Your task to perform on an android device: Open Youtube and go to "Your channel" Image 0: 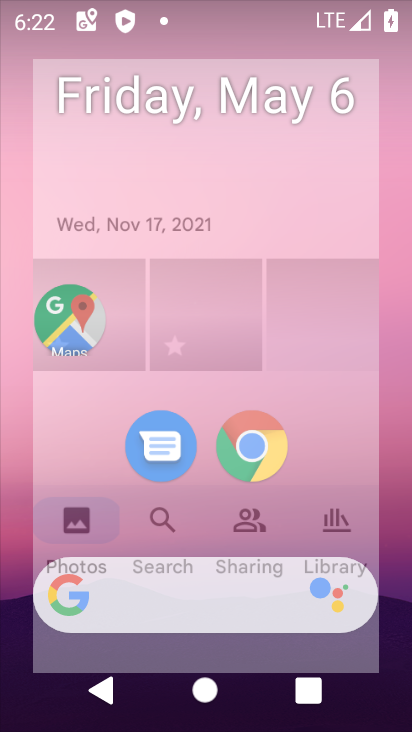
Step 0: click (238, 455)
Your task to perform on an android device: Open Youtube and go to "Your channel" Image 1: 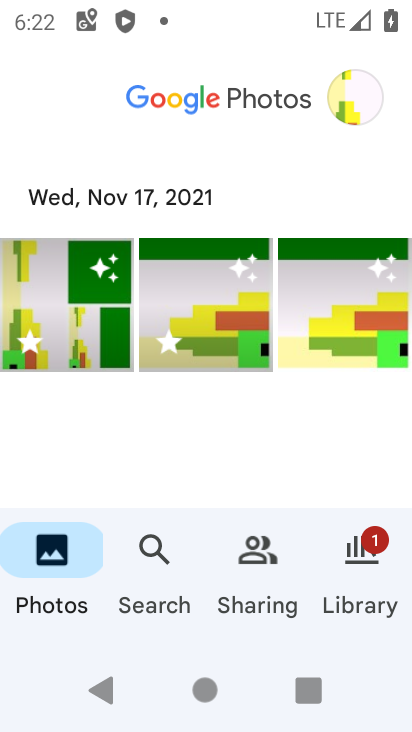
Step 1: press home button
Your task to perform on an android device: Open Youtube and go to "Your channel" Image 2: 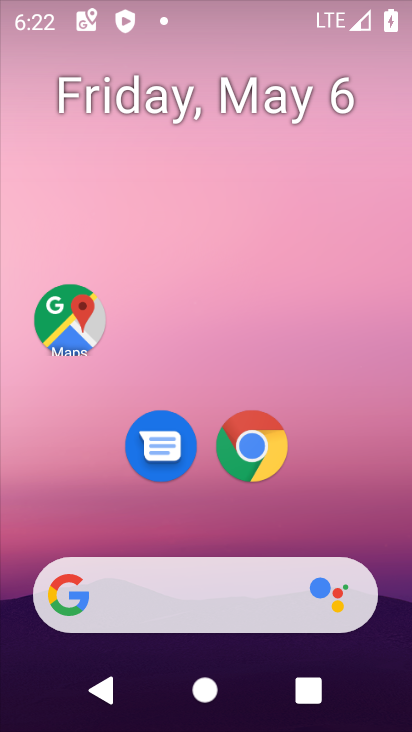
Step 2: drag from (324, 457) to (274, 132)
Your task to perform on an android device: Open Youtube and go to "Your channel" Image 3: 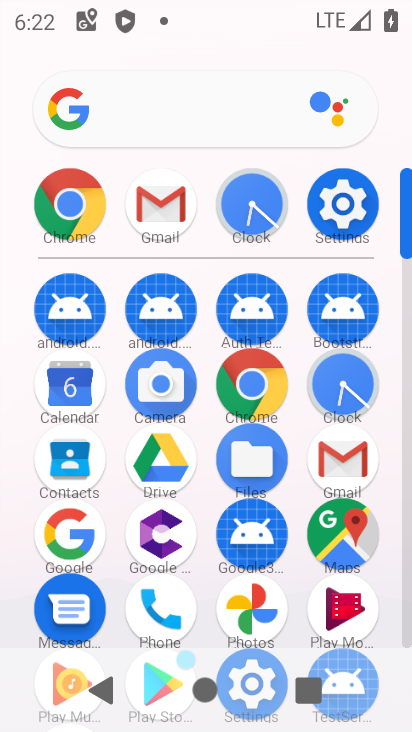
Step 3: click (62, 203)
Your task to perform on an android device: Open Youtube and go to "Your channel" Image 4: 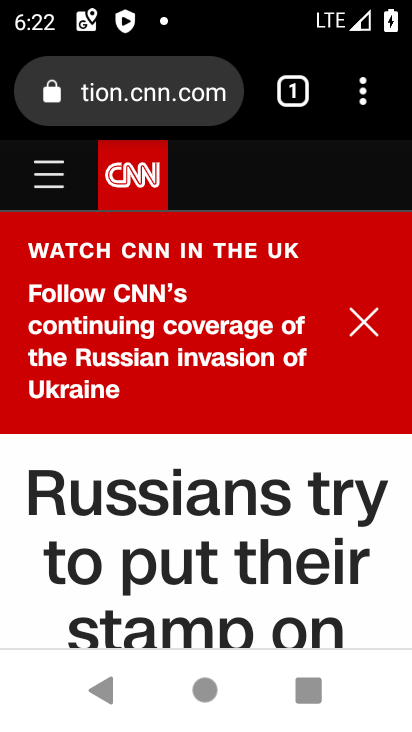
Step 4: press home button
Your task to perform on an android device: Open Youtube and go to "Your channel" Image 5: 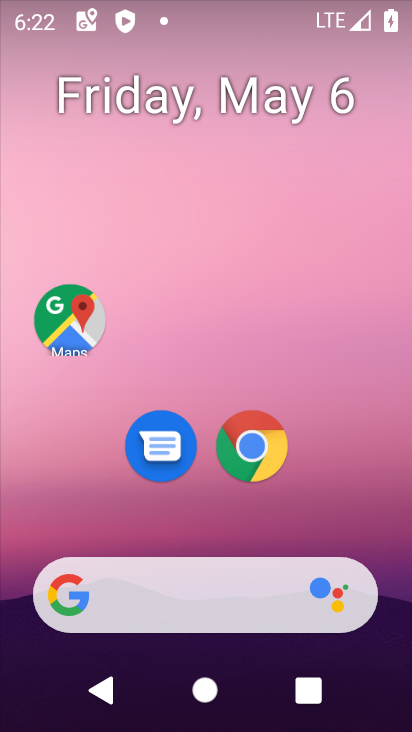
Step 5: drag from (306, 506) to (253, 119)
Your task to perform on an android device: Open Youtube and go to "Your channel" Image 6: 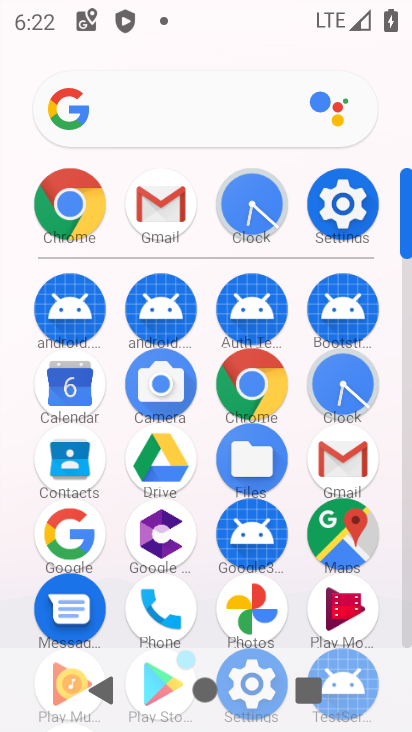
Step 6: drag from (297, 546) to (329, 119)
Your task to perform on an android device: Open Youtube and go to "Your channel" Image 7: 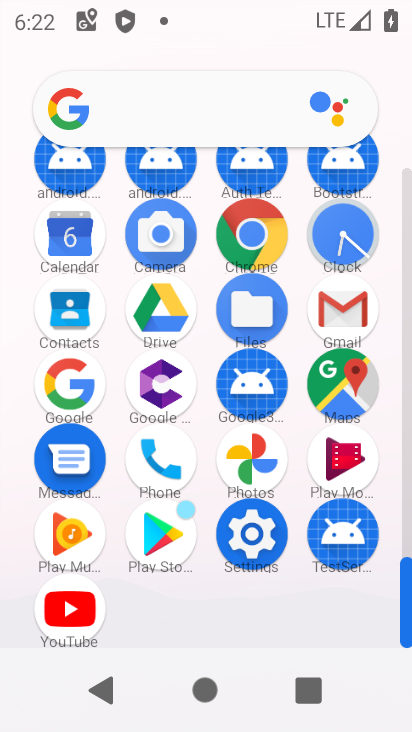
Step 7: click (58, 624)
Your task to perform on an android device: Open Youtube and go to "Your channel" Image 8: 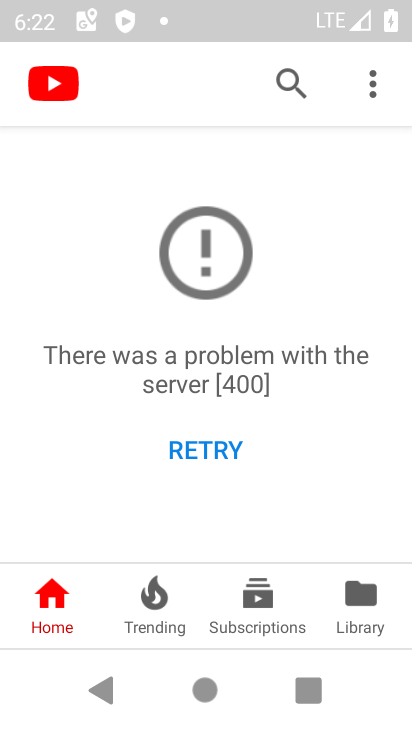
Step 8: click (267, 617)
Your task to perform on an android device: Open Youtube and go to "Your channel" Image 9: 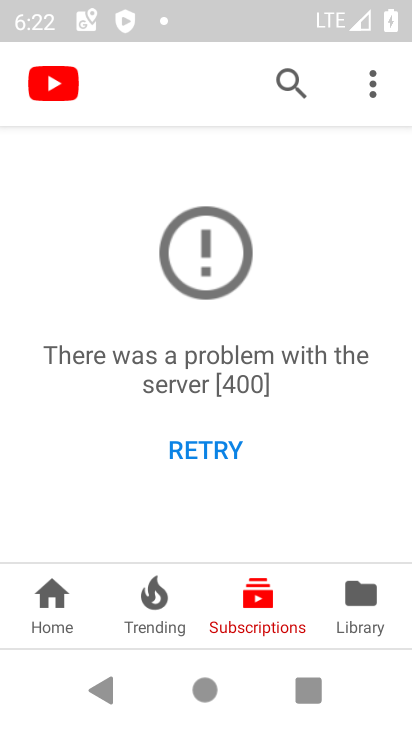
Step 9: click (73, 94)
Your task to perform on an android device: Open Youtube and go to "Your channel" Image 10: 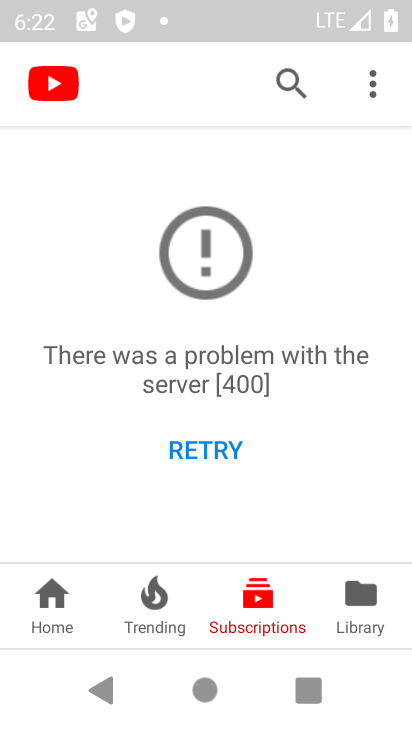
Step 10: click (375, 74)
Your task to perform on an android device: Open Youtube and go to "Your channel" Image 11: 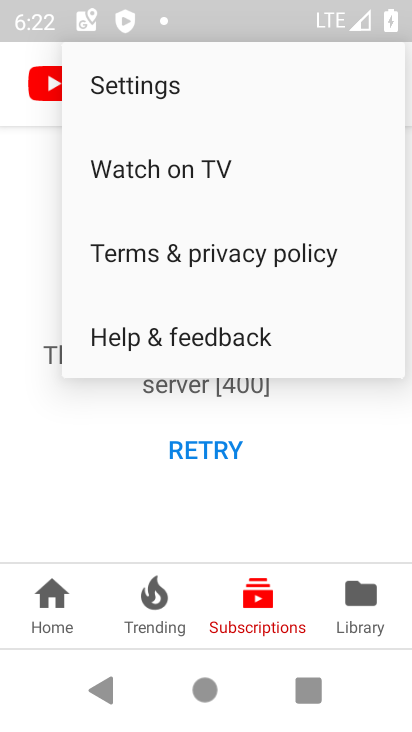
Step 11: click (146, 78)
Your task to perform on an android device: Open Youtube and go to "Your channel" Image 12: 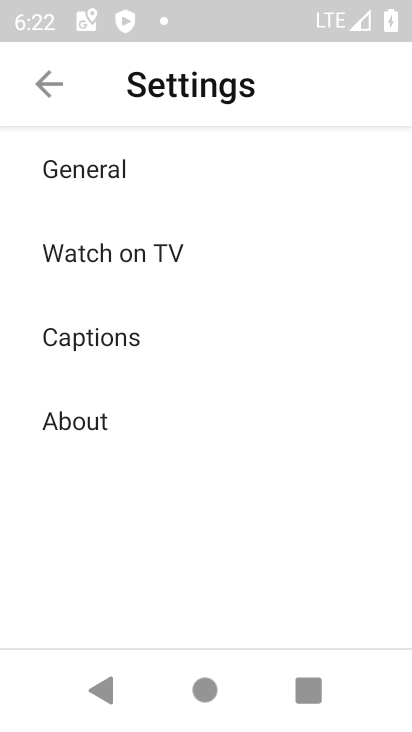
Step 12: click (75, 156)
Your task to perform on an android device: Open Youtube and go to "Your channel" Image 13: 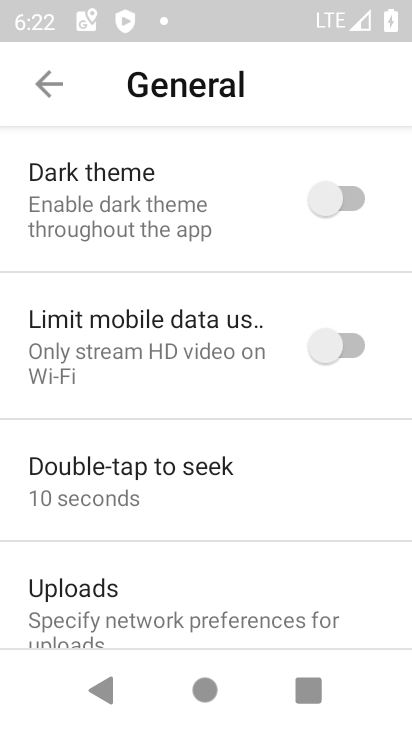
Step 13: drag from (155, 570) to (216, 124)
Your task to perform on an android device: Open Youtube and go to "Your channel" Image 14: 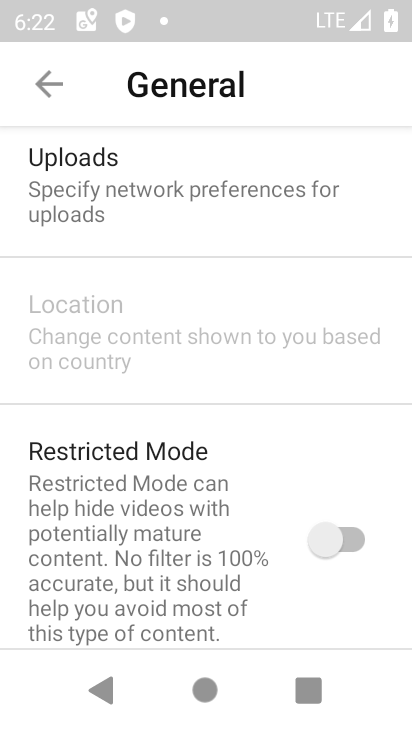
Step 14: click (50, 76)
Your task to perform on an android device: Open Youtube and go to "Your channel" Image 15: 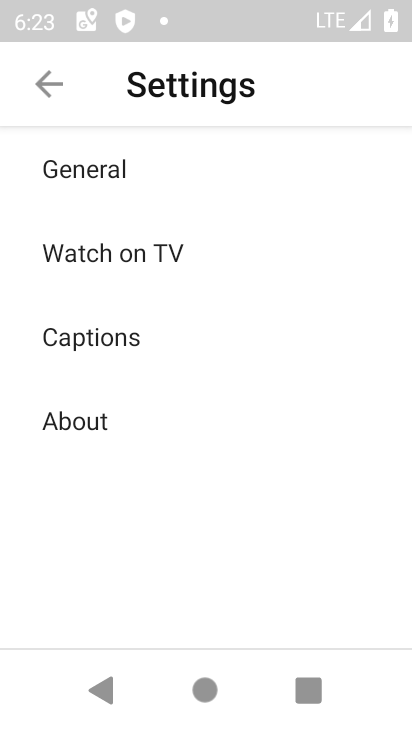
Step 15: click (46, 78)
Your task to perform on an android device: Open Youtube and go to "Your channel" Image 16: 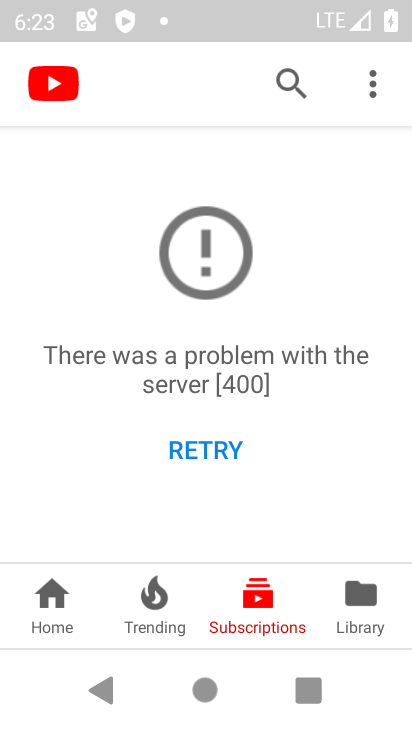
Step 16: click (356, 628)
Your task to perform on an android device: Open Youtube and go to "Your channel" Image 17: 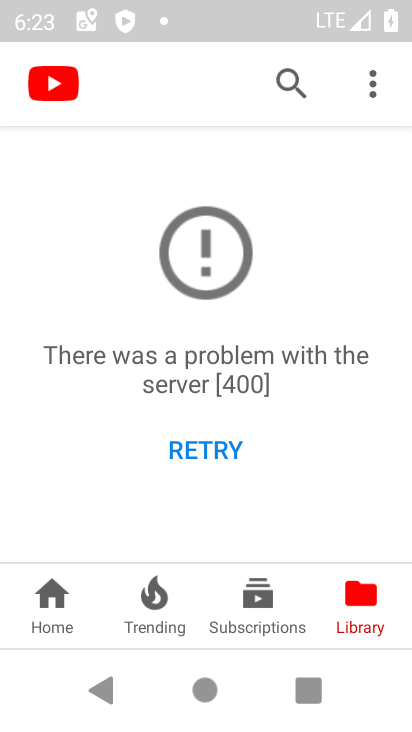
Step 17: task complete